Your task to perform on an android device: Search for hotels in Las Vegas Image 0: 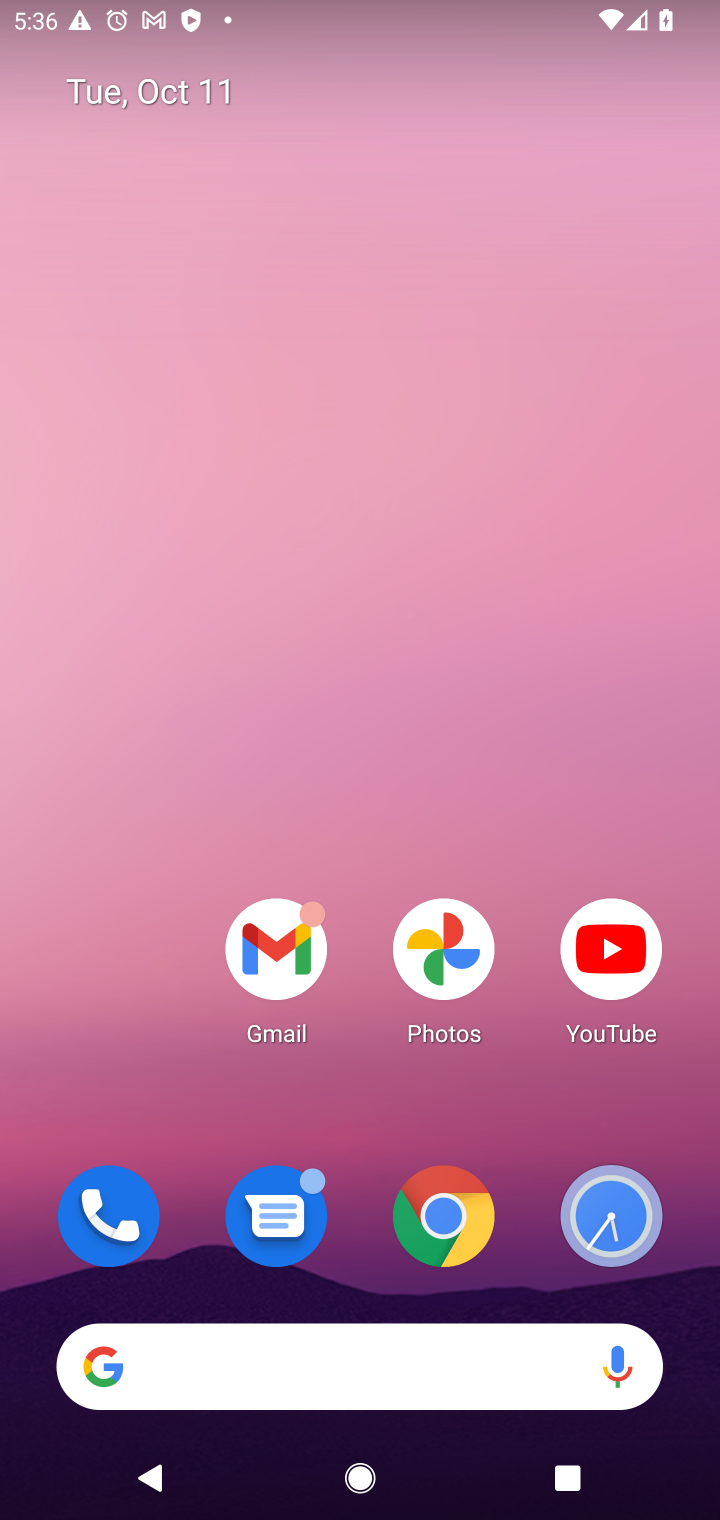
Step 0: click (410, 1255)
Your task to perform on an android device: Search for hotels in Las Vegas Image 1: 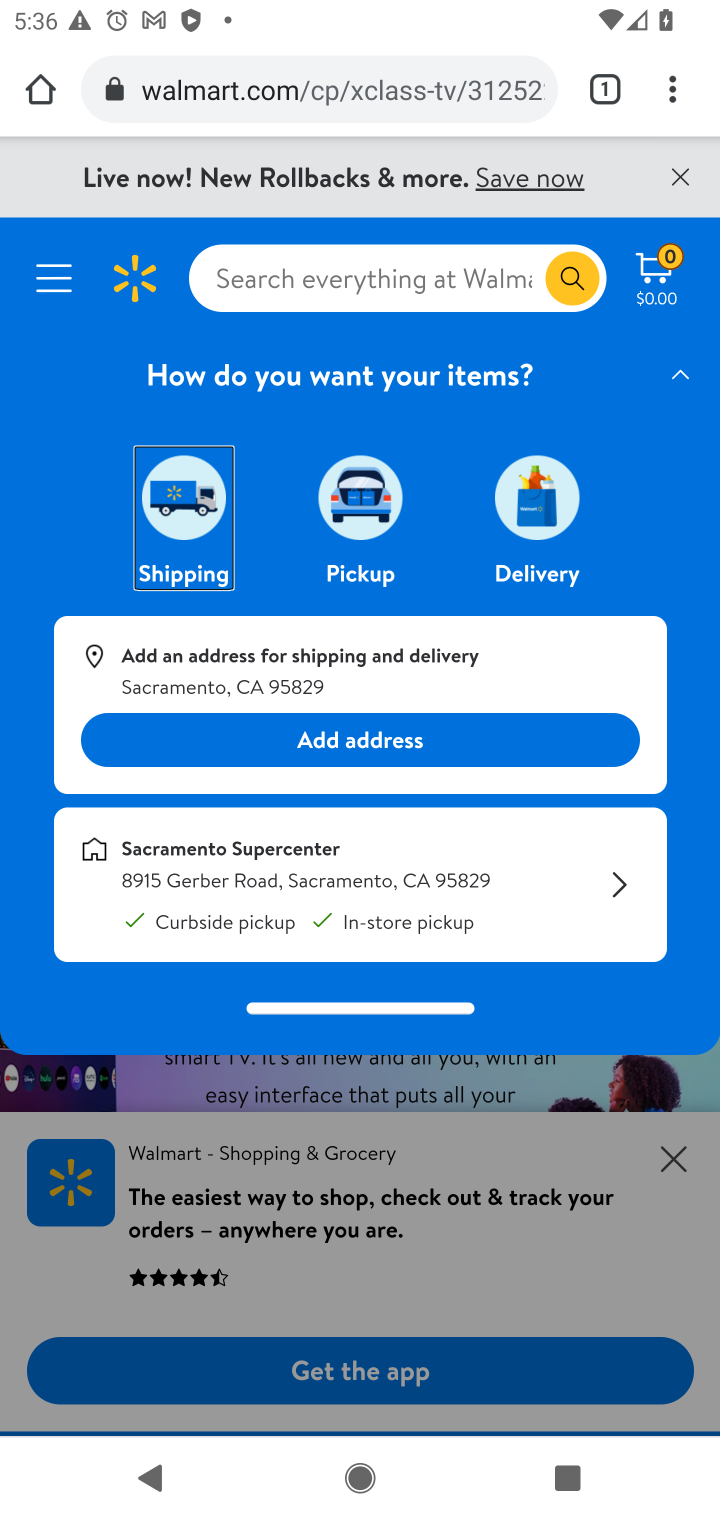
Step 1: click (407, 91)
Your task to perform on an android device: Search for hotels in Las Vegas Image 2: 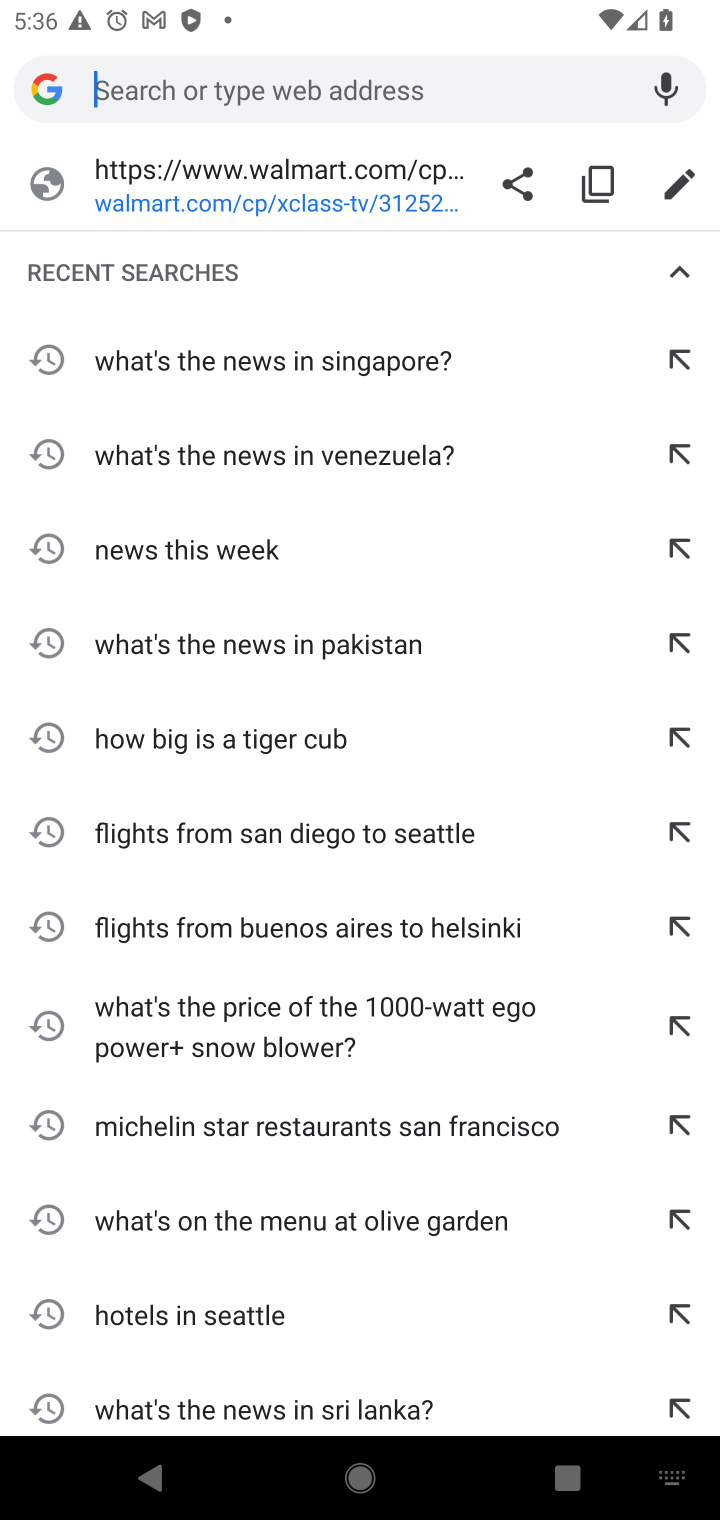
Step 2: type "hotels in Las Vegas"
Your task to perform on an android device: Search for hotels in Las Vegas Image 3: 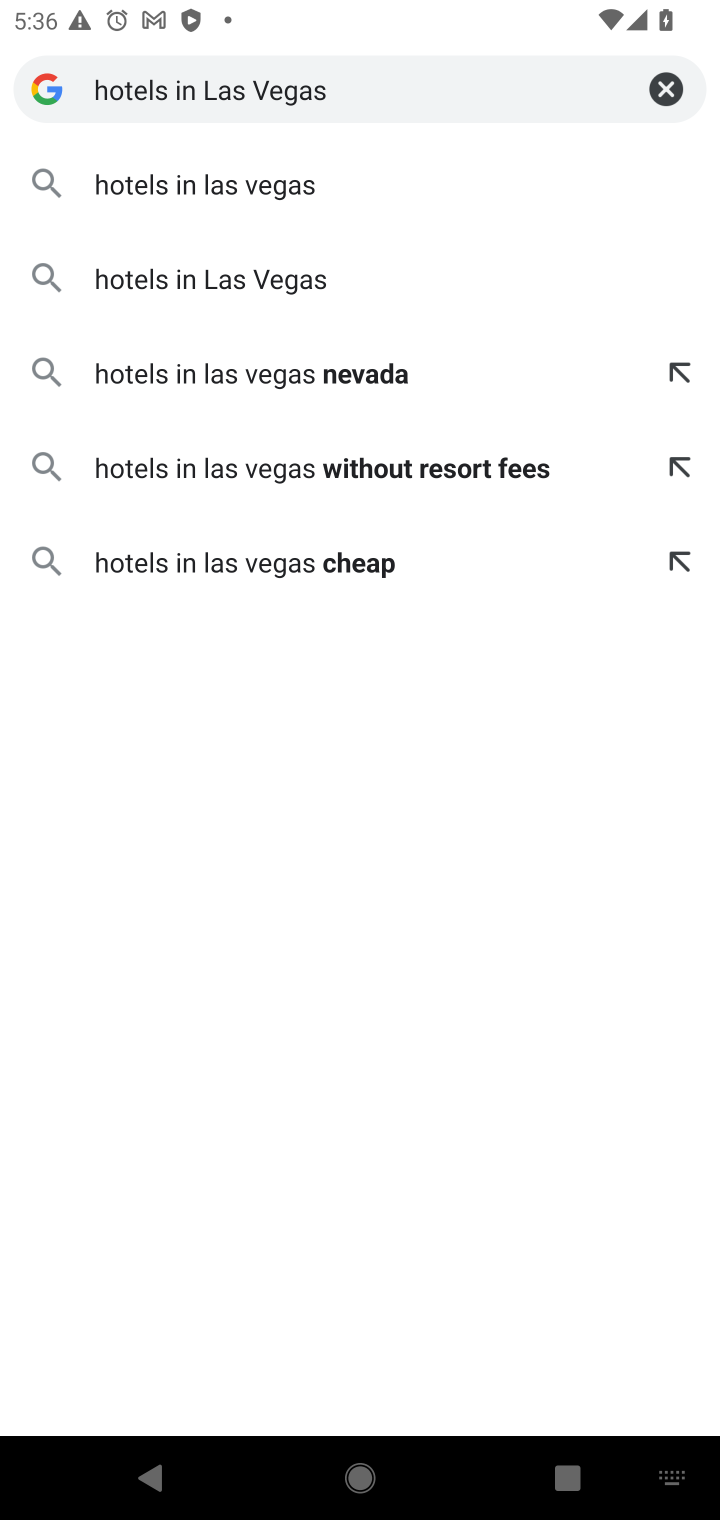
Step 3: click (180, 206)
Your task to perform on an android device: Search for hotels in Las Vegas Image 4: 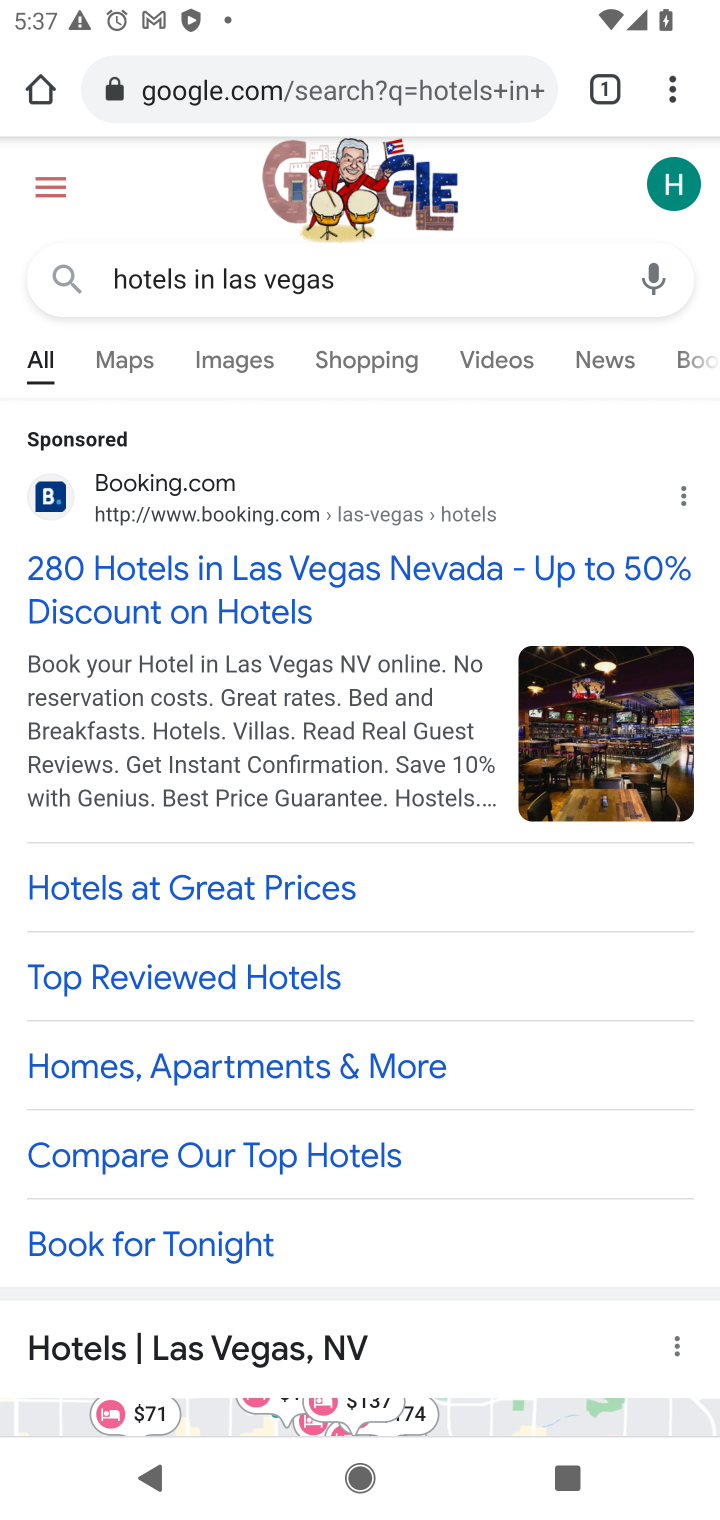
Step 4: task complete